Your task to perform on an android device: Open network settings Image 0: 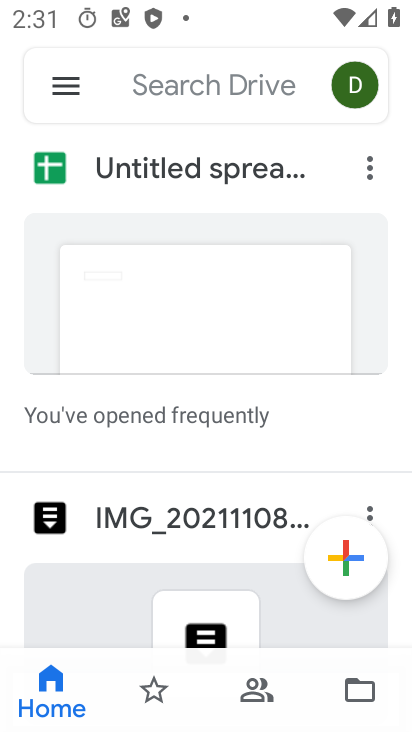
Step 0: press home button
Your task to perform on an android device: Open network settings Image 1: 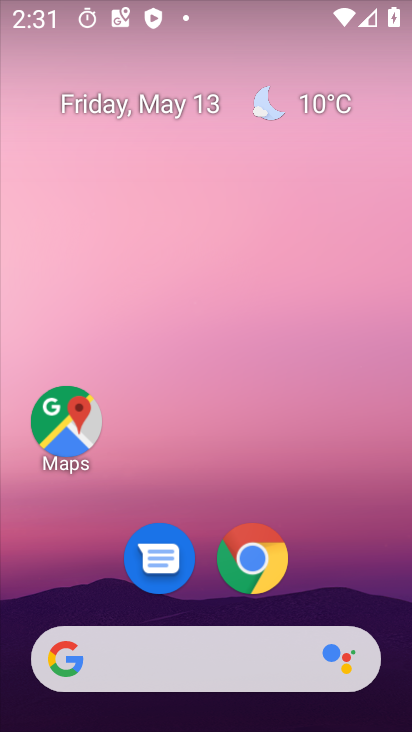
Step 1: drag from (203, 607) to (183, 152)
Your task to perform on an android device: Open network settings Image 2: 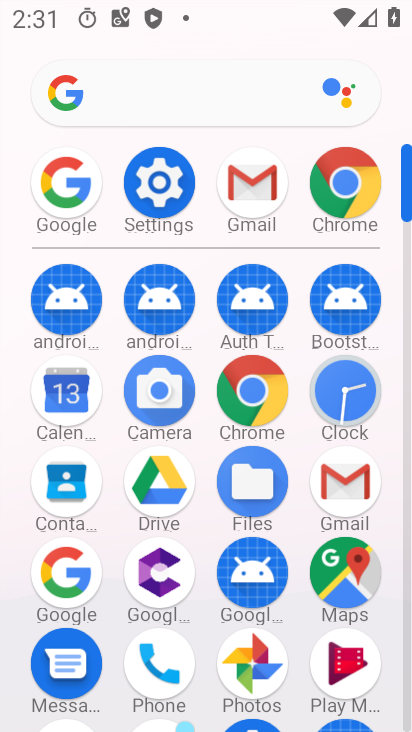
Step 2: click (166, 186)
Your task to perform on an android device: Open network settings Image 3: 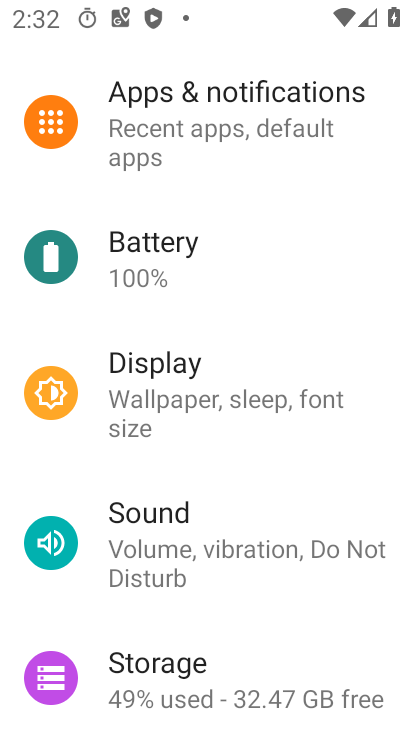
Step 3: drag from (216, 211) to (228, 475)
Your task to perform on an android device: Open network settings Image 4: 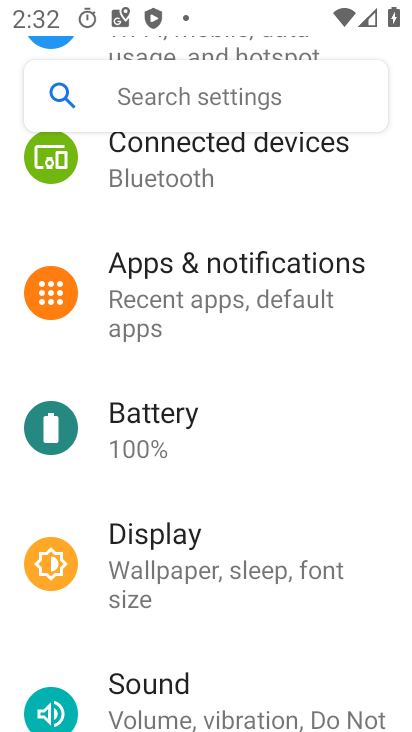
Step 4: drag from (203, 245) to (233, 503)
Your task to perform on an android device: Open network settings Image 5: 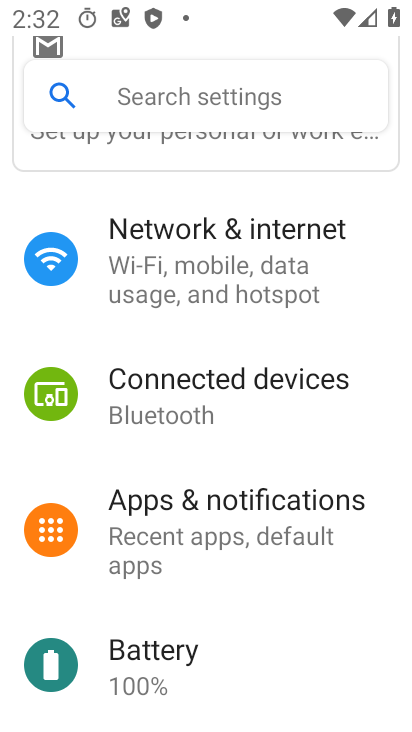
Step 5: click (211, 256)
Your task to perform on an android device: Open network settings Image 6: 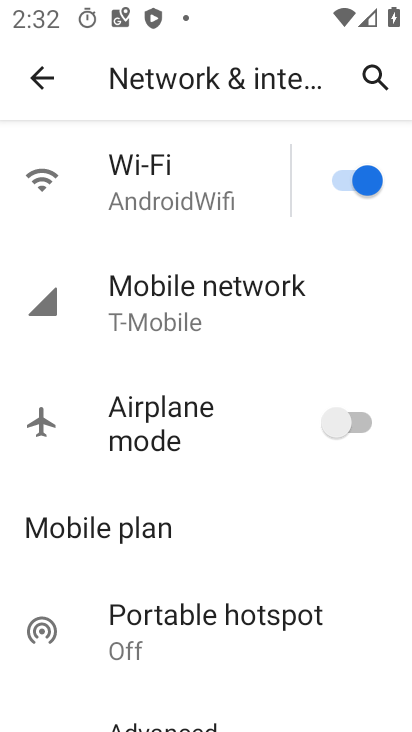
Step 6: drag from (192, 563) to (199, 312)
Your task to perform on an android device: Open network settings Image 7: 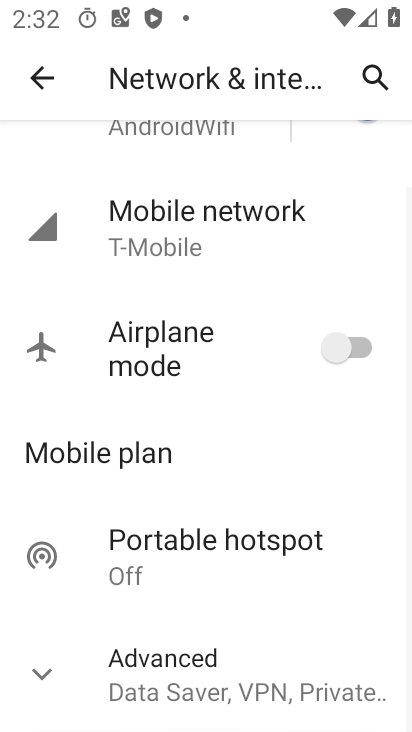
Step 7: drag from (215, 351) to (224, 516)
Your task to perform on an android device: Open network settings Image 8: 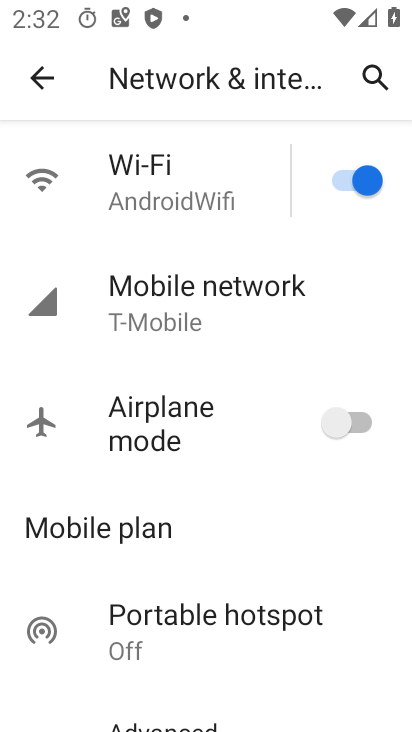
Step 8: click (169, 203)
Your task to perform on an android device: Open network settings Image 9: 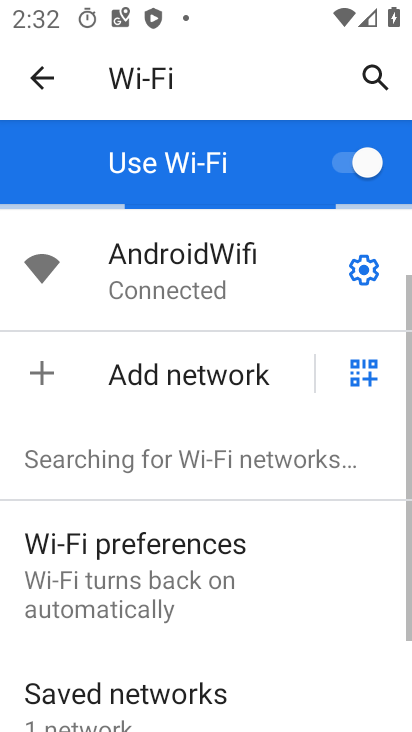
Step 9: click (45, 91)
Your task to perform on an android device: Open network settings Image 10: 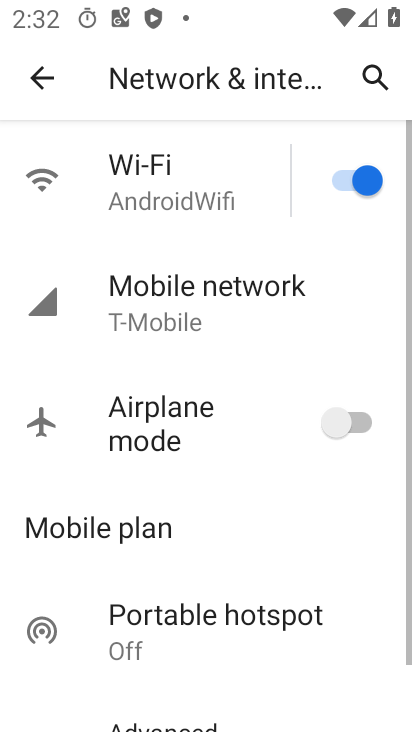
Step 10: click (153, 306)
Your task to perform on an android device: Open network settings Image 11: 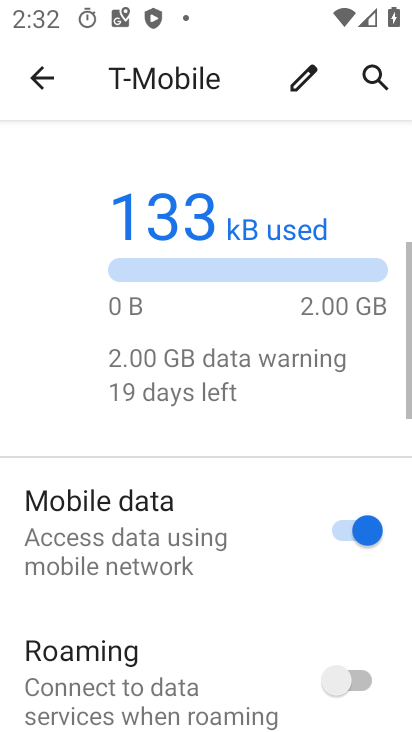
Step 11: task complete